Your task to perform on an android device: Show the shopping cart on bestbuy.com. Search for lg ultragear on bestbuy.com, select the first entry, and add it to the cart. Image 0: 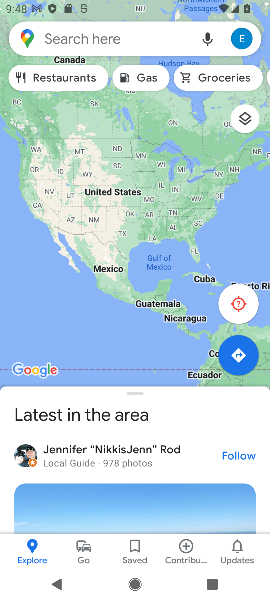
Step 0: press home button
Your task to perform on an android device: Show the shopping cart on bestbuy.com. Search for lg ultragear on bestbuy.com, select the first entry, and add it to the cart. Image 1: 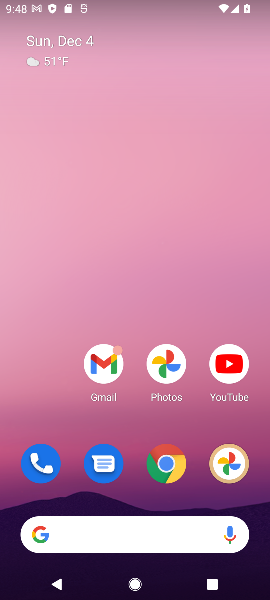
Step 1: click (120, 543)
Your task to perform on an android device: Show the shopping cart on bestbuy.com. Search for lg ultragear on bestbuy.com, select the first entry, and add it to the cart. Image 2: 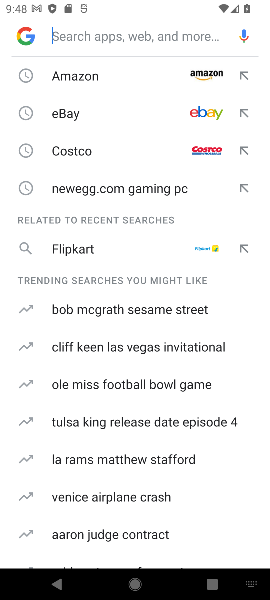
Step 2: type "bestbuy"
Your task to perform on an android device: Show the shopping cart on bestbuy.com. Search for lg ultragear on bestbuy.com, select the first entry, and add it to the cart. Image 3: 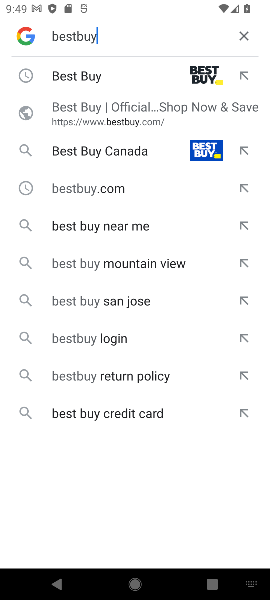
Step 3: click (110, 67)
Your task to perform on an android device: Show the shopping cart on bestbuy.com. Search for lg ultragear on bestbuy.com, select the first entry, and add it to the cart. Image 4: 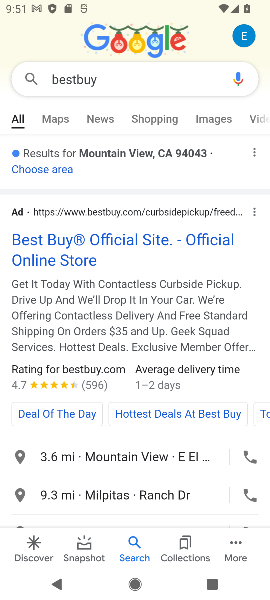
Step 4: click (139, 244)
Your task to perform on an android device: Show the shopping cart on bestbuy.com. Search for lg ultragear on bestbuy.com, select the first entry, and add it to the cart. Image 5: 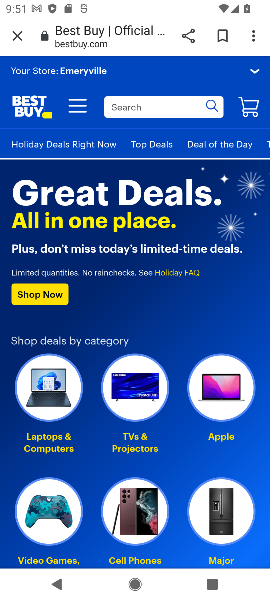
Step 5: task complete